Your task to perform on an android device: Search for pizza restaurants on Maps Image 0: 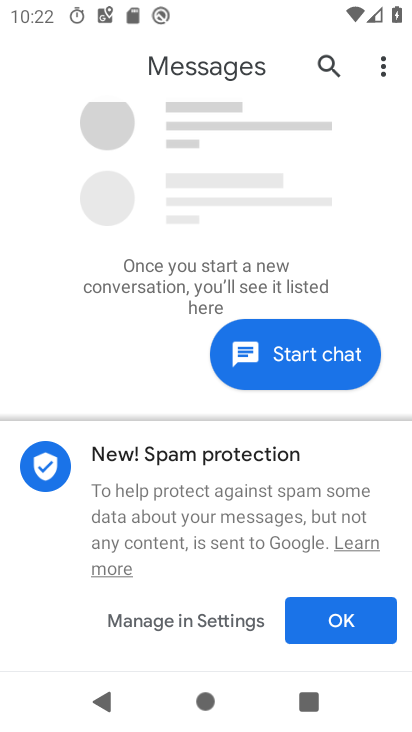
Step 0: press home button
Your task to perform on an android device: Search for pizza restaurants on Maps Image 1: 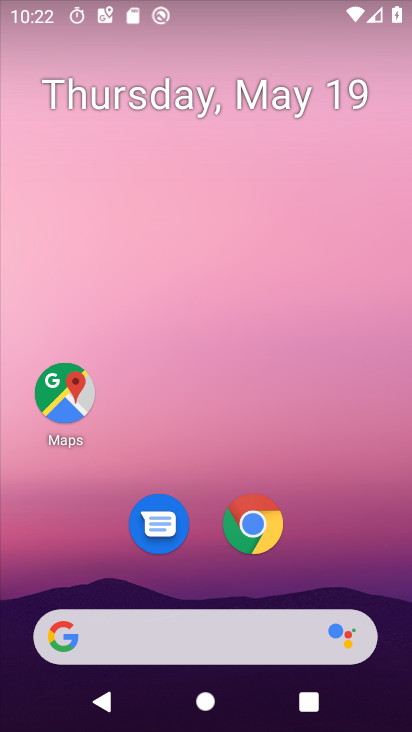
Step 1: click (59, 387)
Your task to perform on an android device: Search for pizza restaurants on Maps Image 2: 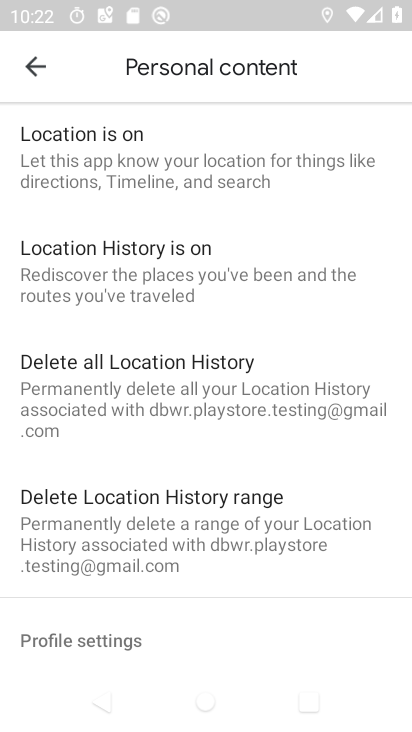
Step 2: click (36, 58)
Your task to perform on an android device: Search for pizza restaurants on Maps Image 3: 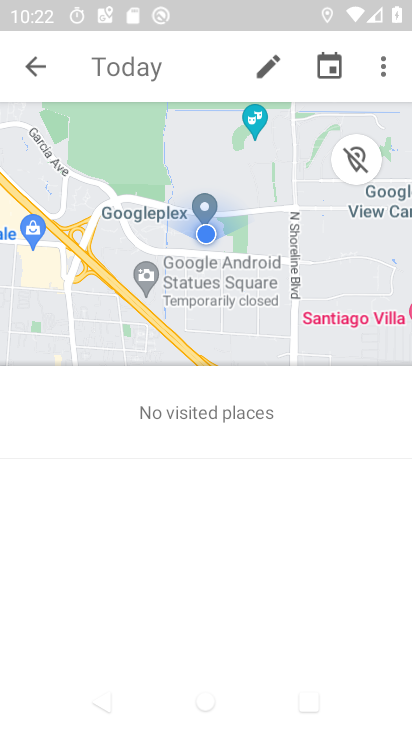
Step 3: click (36, 59)
Your task to perform on an android device: Search for pizza restaurants on Maps Image 4: 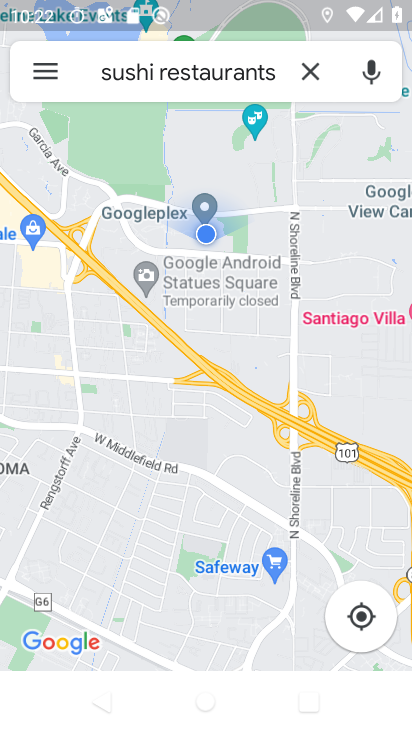
Step 4: click (311, 65)
Your task to perform on an android device: Search for pizza restaurants on Maps Image 5: 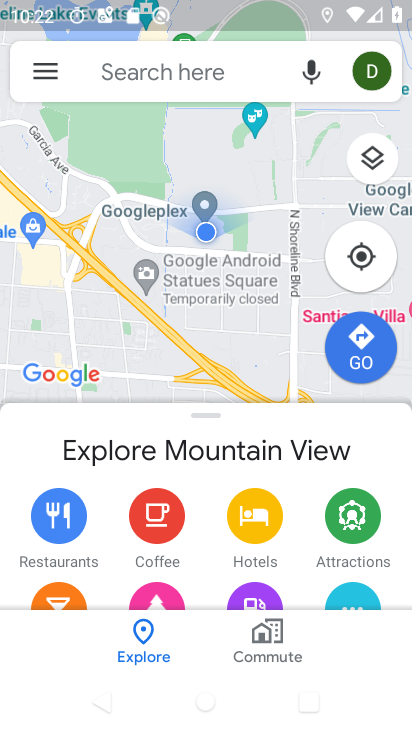
Step 5: click (203, 65)
Your task to perform on an android device: Search for pizza restaurants on Maps Image 6: 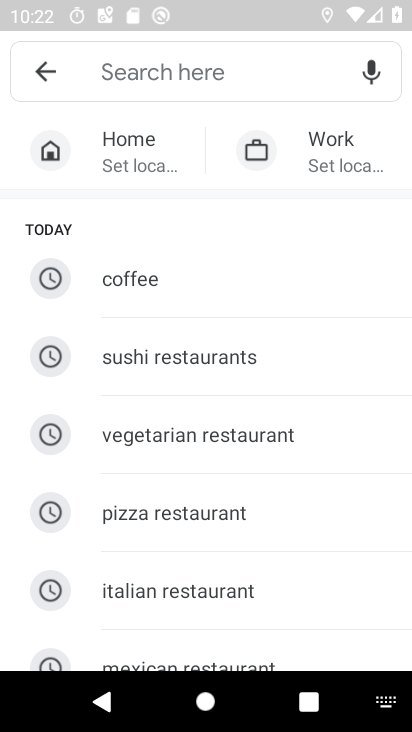
Step 6: click (170, 511)
Your task to perform on an android device: Search for pizza restaurants on Maps Image 7: 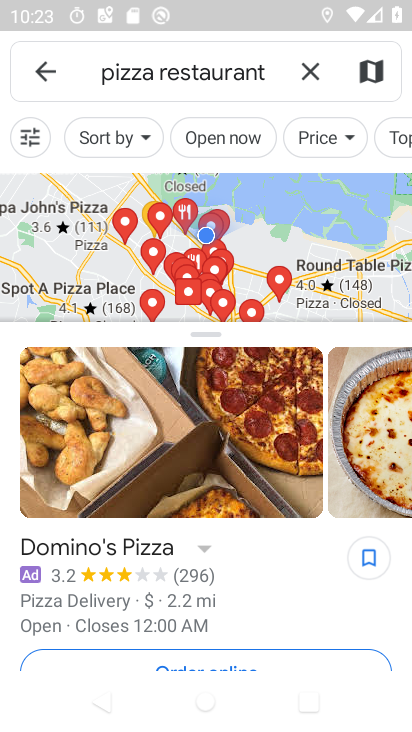
Step 7: task complete